Your task to perform on an android device: turn off sleep mode Image 0: 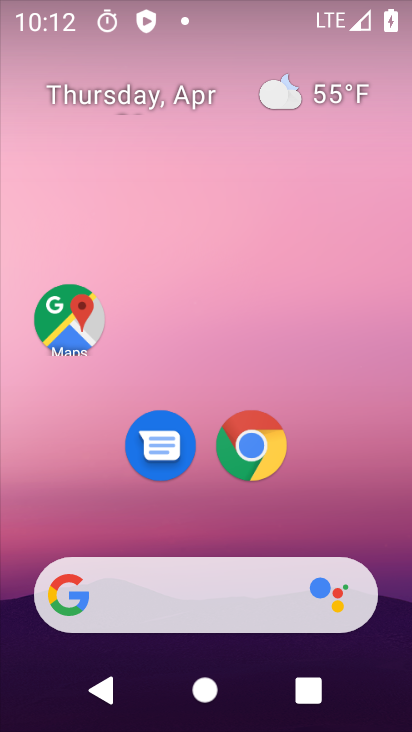
Step 0: drag from (363, 522) to (299, 11)
Your task to perform on an android device: turn off sleep mode Image 1: 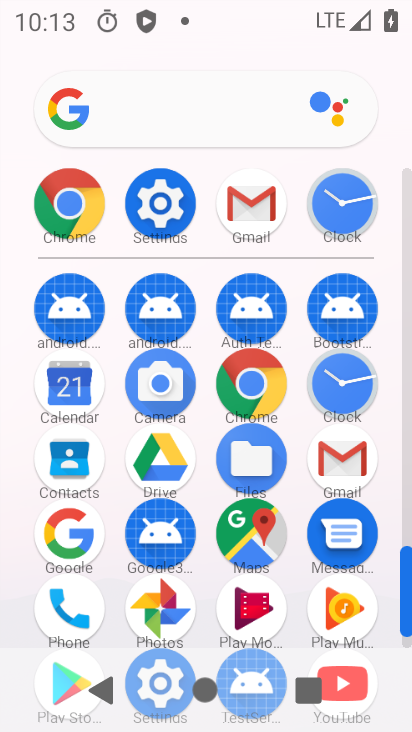
Step 1: click (159, 206)
Your task to perform on an android device: turn off sleep mode Image 2: 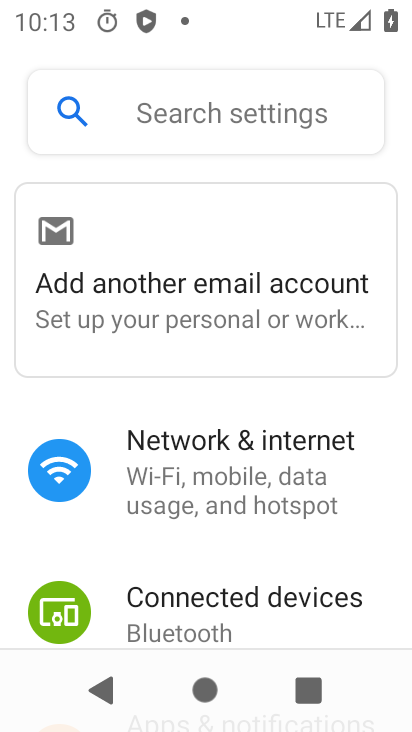
Step 2: drag from (253, 504) to (241, 119)
Your task to perform on an android device: turn off sleep mode Image 3: 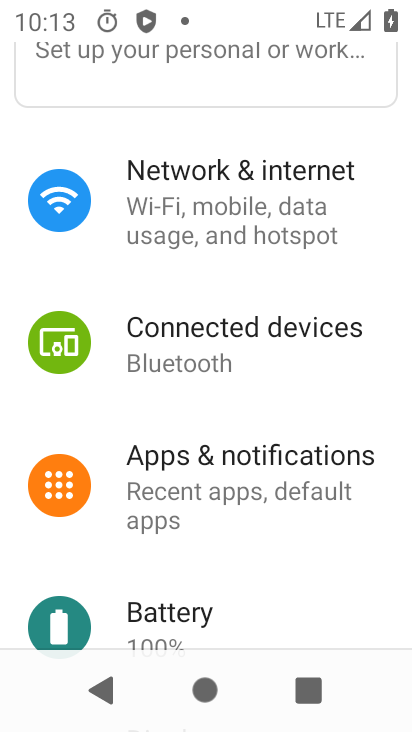
Step 3: drag from (163, 525) to (159, 101)
Your task to perform on an android device: turn off sleep mode Image 4: 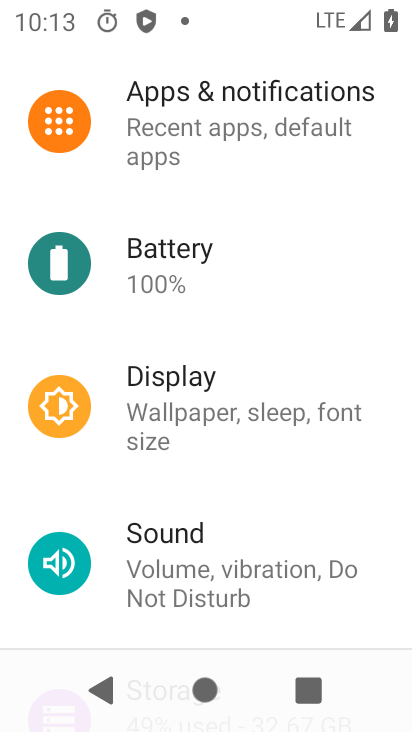
Step 4: click (182, 409)
Your task to perform on an android device: turn off sleep mode Image 5: 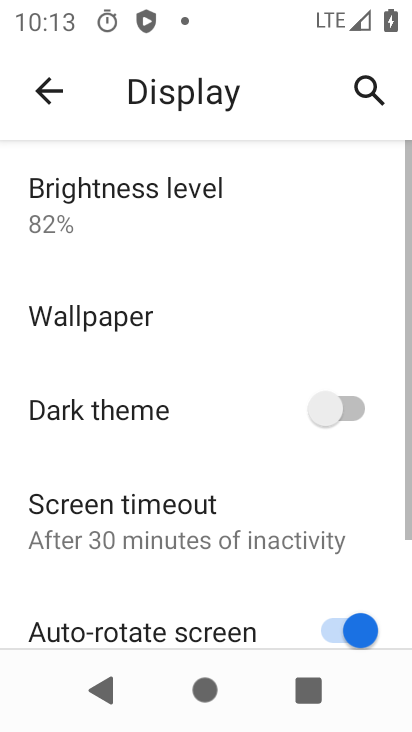
Step 5: drag from (205, 488) to (210, 75)
Your task to perform on an android device: turn off sleep mode Image 6: 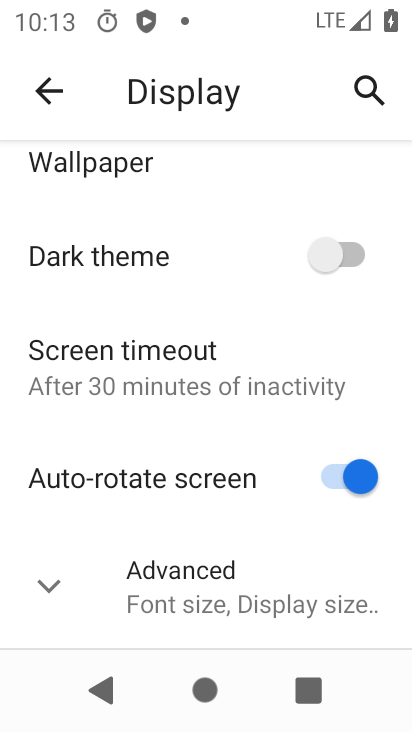
Step 6: click (45, 585)
Your task to perform on an android device: turn off sleep mode Image 7: 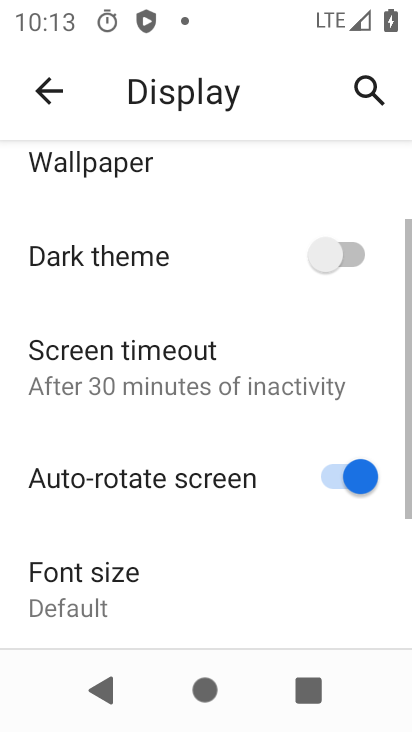
Step 7: task complete